Your task to perform on an android device: Open location settings Image 0: 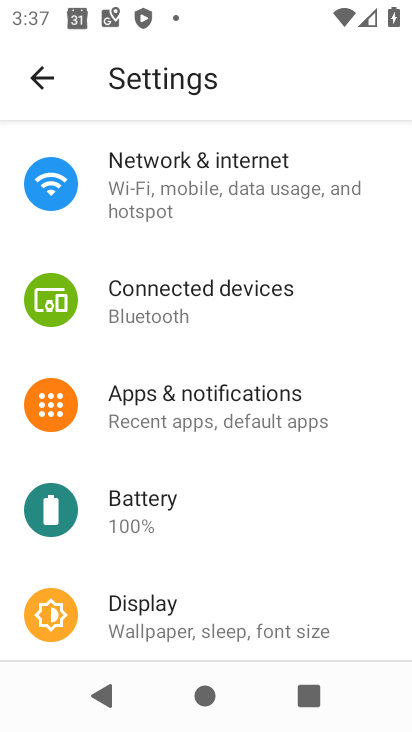
Step 0: drag from (213, 613) to (182, 229)
Your task to perform on an android device: Open location settings Image 1: 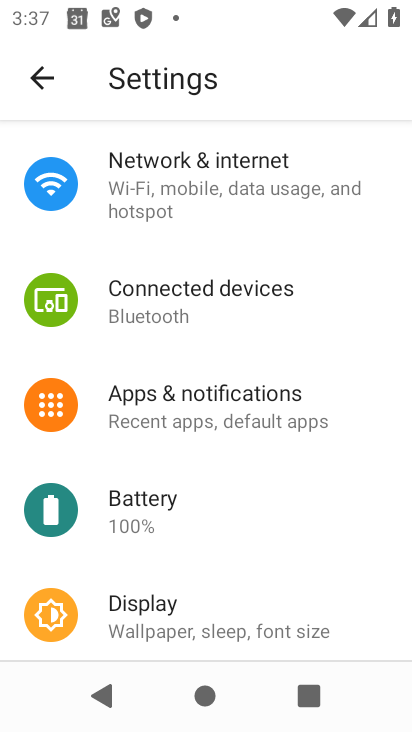
Step 1: drag from (167, 611) to (192, 235)
Your task to perform on an android device: Open location settings Image 2: 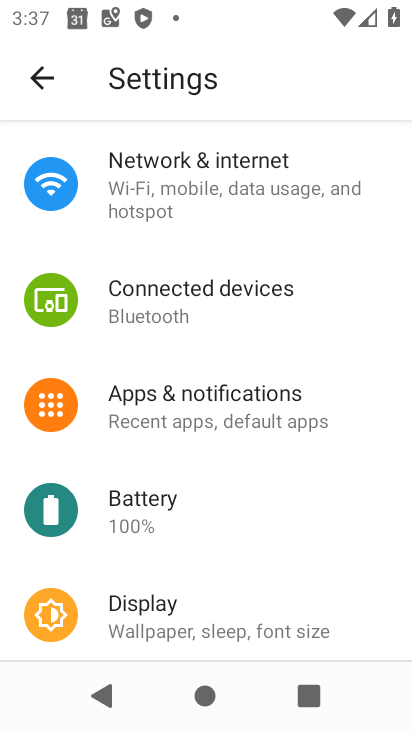
Step 2: drag from (241, 565) to (286, 110)
Your task to perform on an android device: Open location settings Image 3: 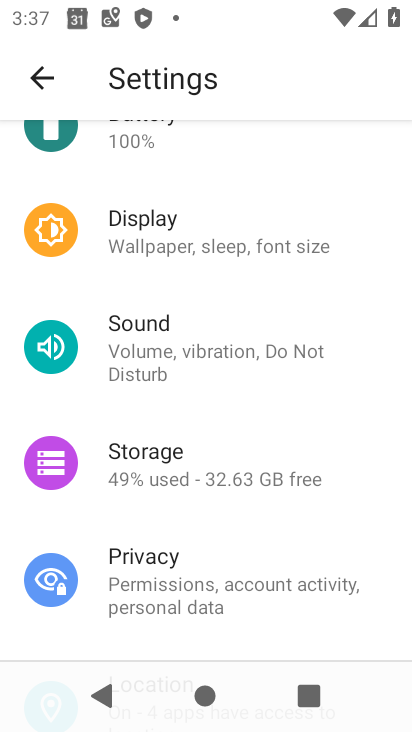
Step 3: drag from (173, 601) to (223, 257)
Your task to perform on an android device: Open location settings Image 4: 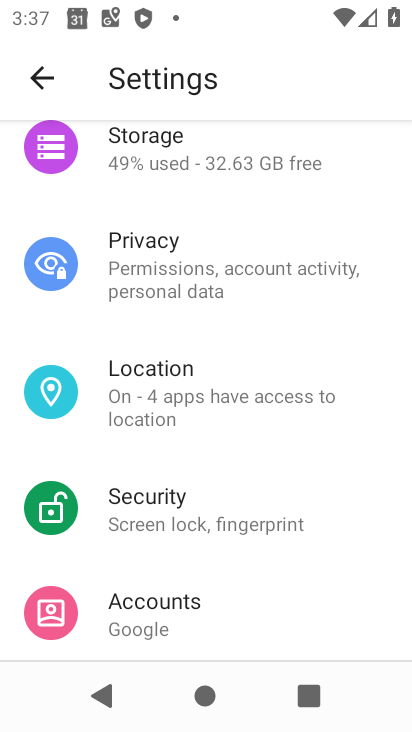
Step 4: click (180, 383)
Your task to perform on an android device: Open location settings Image 5: 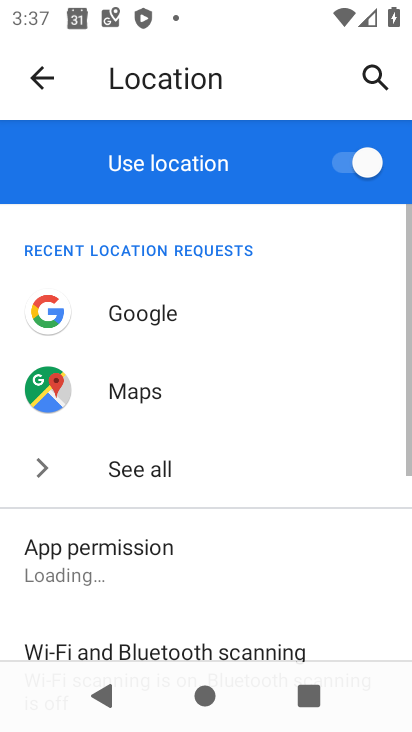
Step 5: drag from (197, 596) to (238, 258)
Your task to perform on an android device: Open location settings Image 6: 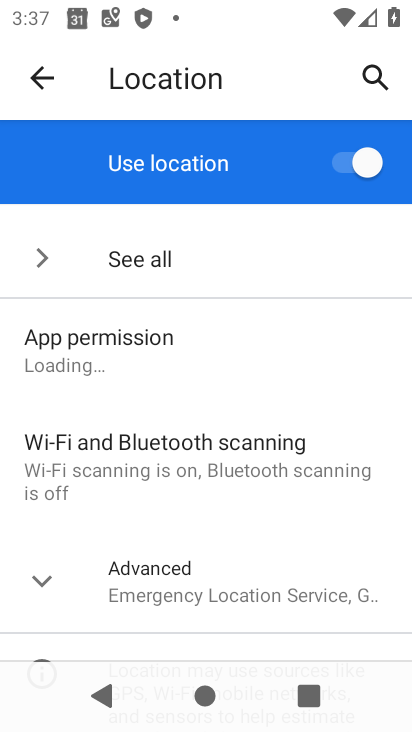
Step 6: click (168, 595)
Your task to perform on an android device: Open location settings Image 7: 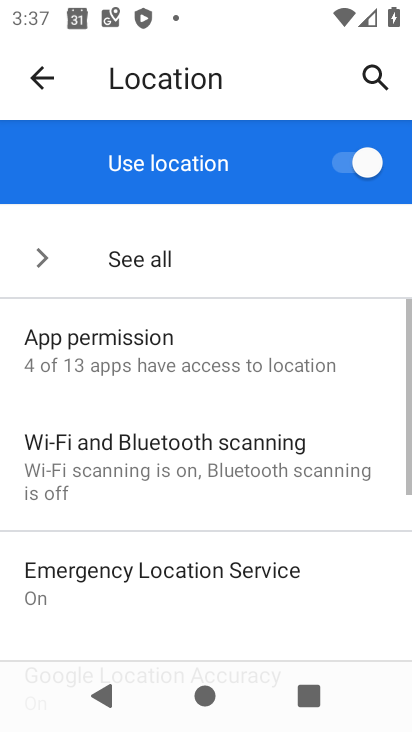
Step 7: task complete